Your task to perform on an android device: open the mobile data screen to see how much data has been used Image 0: 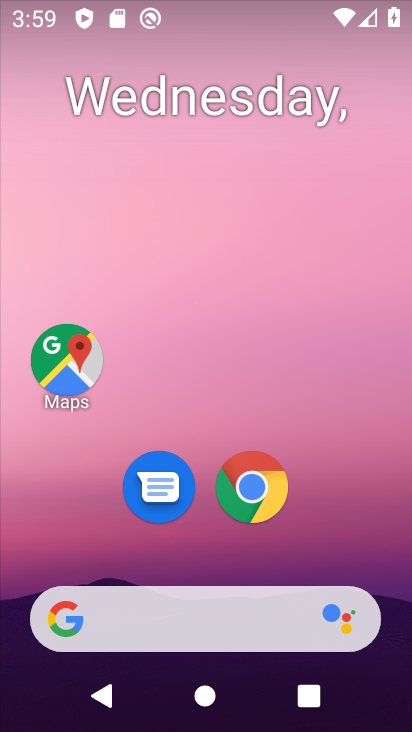
Step 0: click (180, 407)
Your task to perform on an android device: open the mobile data screen to see how much data has been used Image 1: 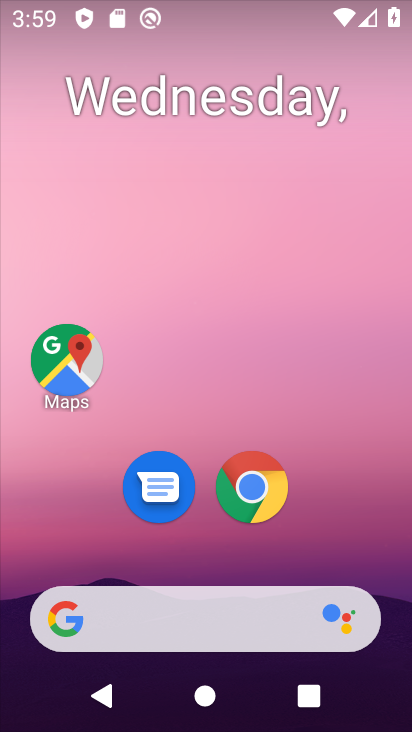
Step 1: drag from (212, 561) to (244, 96)
Your task to perform on an android device: open the mobile data screen to see how much data has been used Image 2: 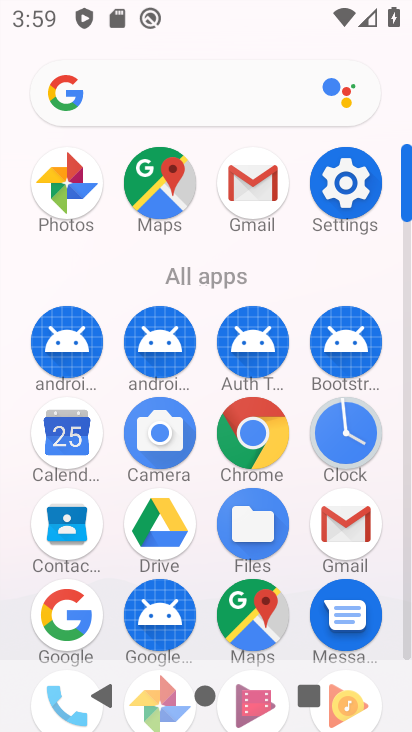
Step 2: click (342, 181)
Your task to perform on an android device: open the mobile data screen to see how much data has been used Image 3: 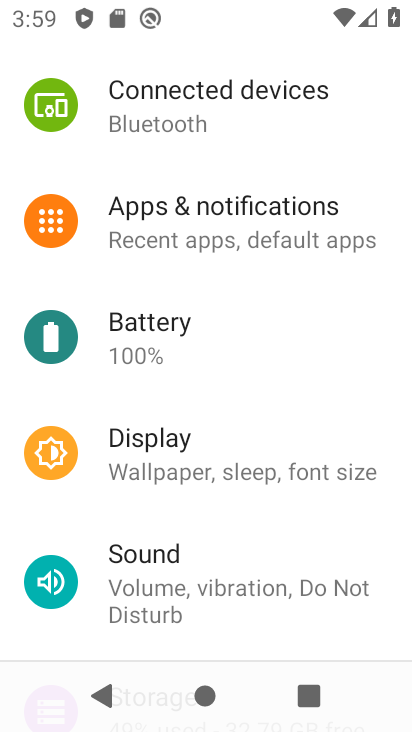
Step 3: drag from (181, 120) to (209, 394)
Your task to perform on an android device: open the mobile data screen to see how much data has been used Image 4: 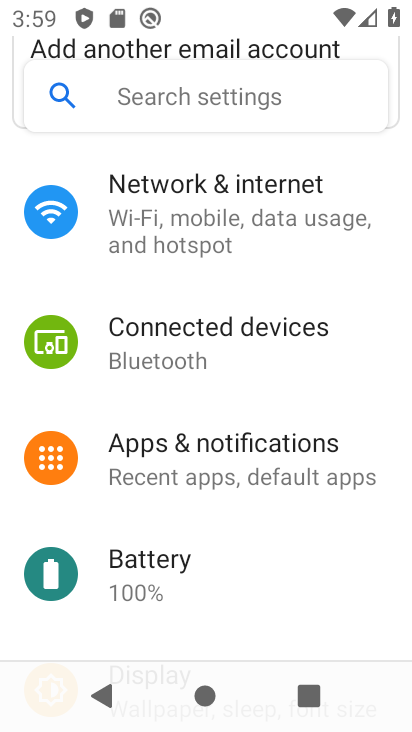
Step 4: click (193, 213)
Your task to perform on an android device: open the mobile data screen to see how much data has been used Image 5: 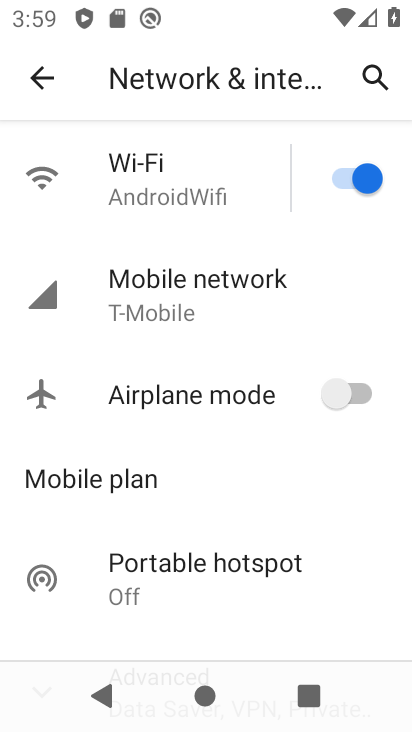
Step 5: click (200, 302)
Your task to perform on an android device: open the mobile data screen to see how much data has been used Image 6: 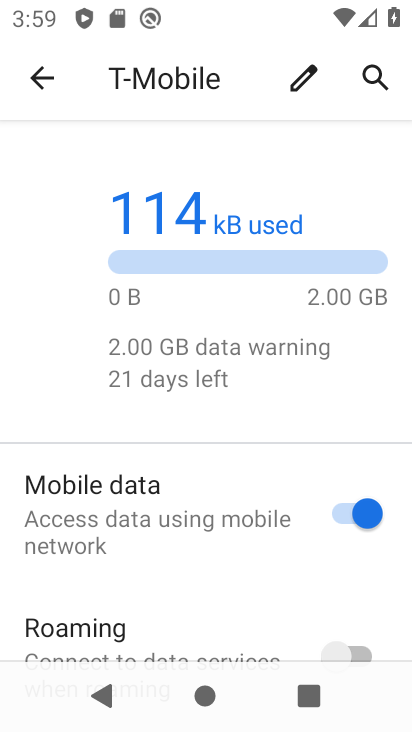
Step 6: drag from (154, 610) to (167, 280)
Your task to perform on an android device: open the mobile data screen to see how much data has been used Image 7: 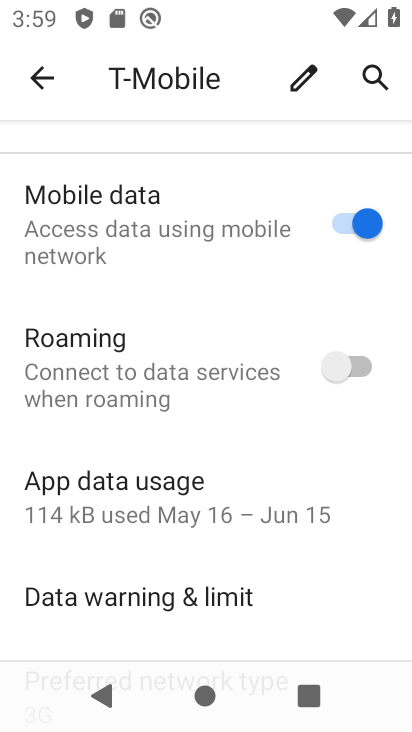
Step 7: click (185, 493)
Your task to perform on an android device: open the mobile data screen to see how much data has been used Image 8: 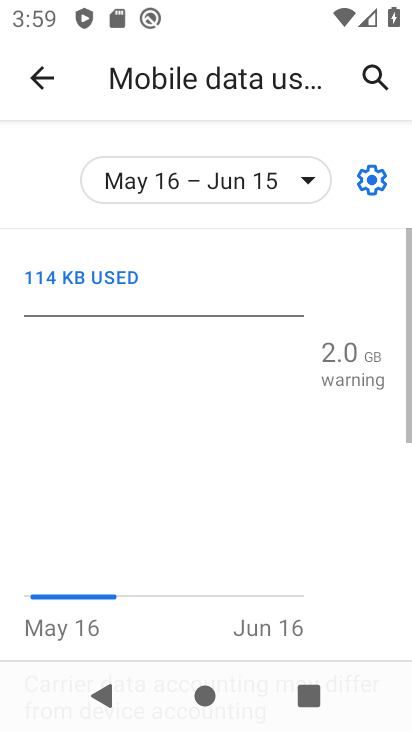
Step 8: task complete